Your task to perform on an android device: manage bookmarks in the chrome app Image 0: 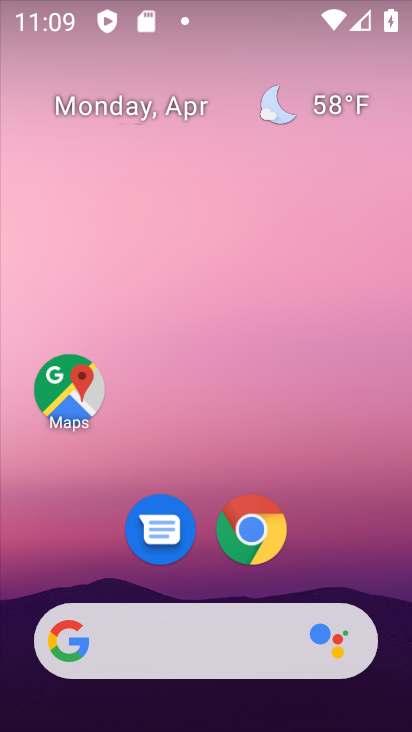
Step 0: click (225, 533)
Your task to perform on an android device: manage bookmarks in the chrome app Image 1: 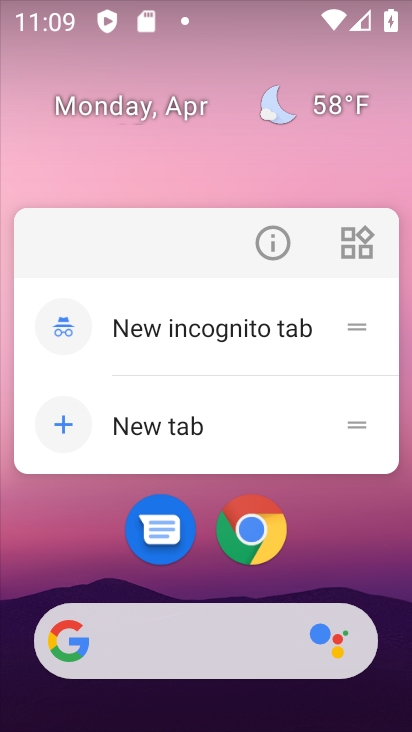
Step 1: click (225, 533)
Your task to perform on an android device: manage bookmarks in the chrome app Image 2: 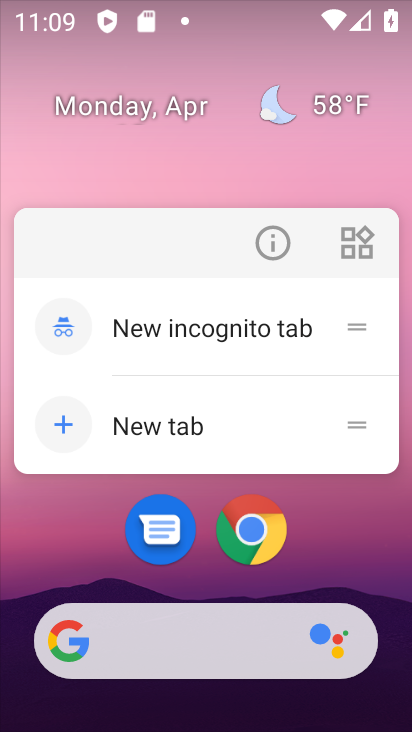
Step 2: click (224, 533)
Your task to perform on an android device: manage bookmarks in the chrome app Image 3: 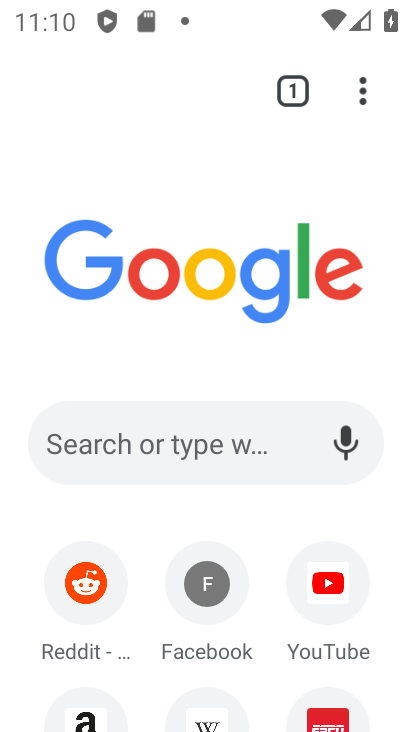
Step 3: click (362, 92)
Your task to perform on an android device: manage bookmarks in the chrome app Image 4: 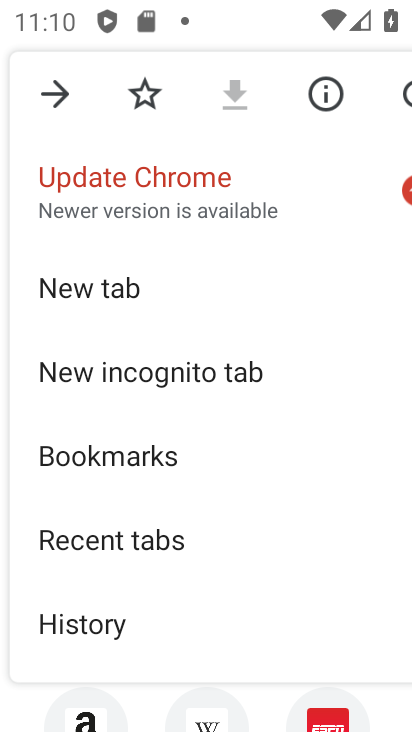
Step 4: click (197, 449)
Your task to perform on an android device: manage bookmarks in the chrome app Image 5: 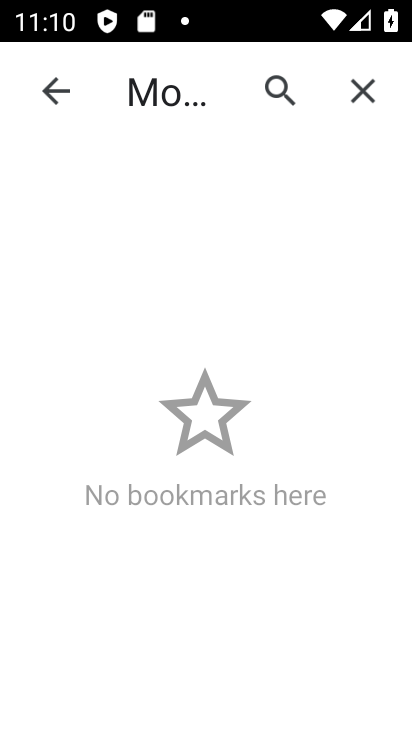
Step 5: task complete